Your task to perform on an android device: turn notification dots off Image 0: 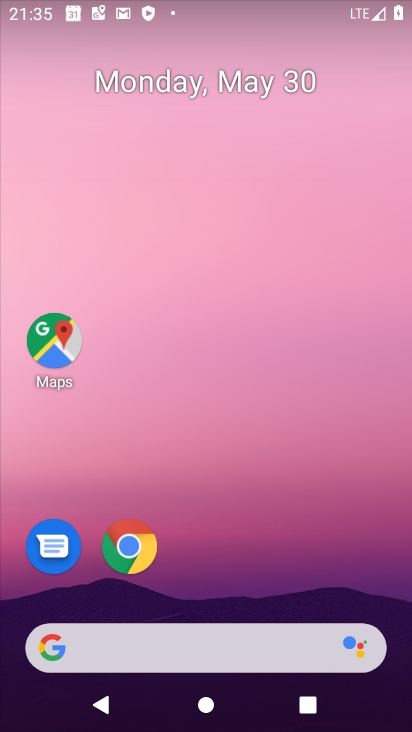
Step 0: drag from (382, 571) to (339, 112)
Your task to perform on an android device: turn notification dots off Image 1: 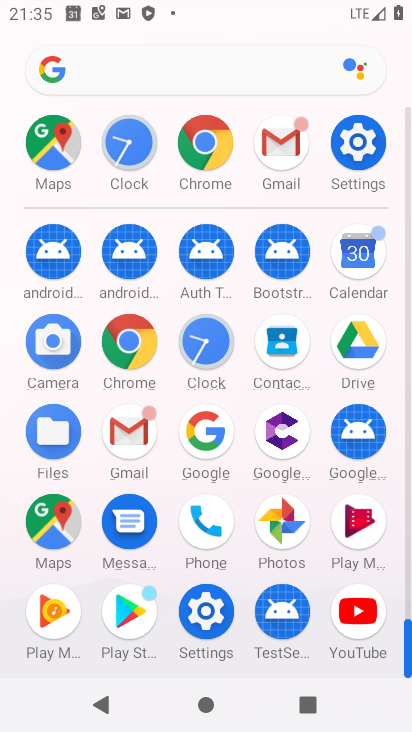
Step 1: click (369, 149)
Your task to perform on an android device: turn notification dots off Image 2: 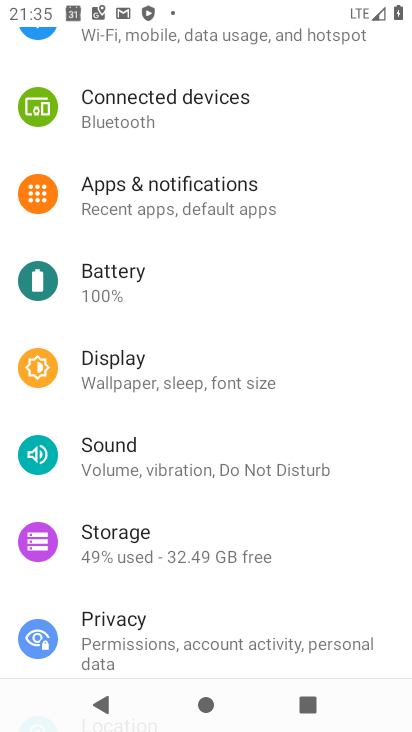
Step 2: click (255, 203)
Your task to perform on an android device: turn notification dots off Image 3: 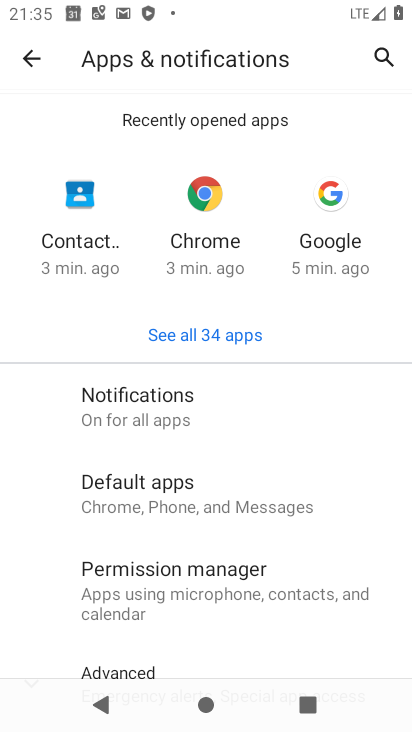
Step 3: click (272, 408)
Your task to perform on an android device: turn notification dots off Image 4: 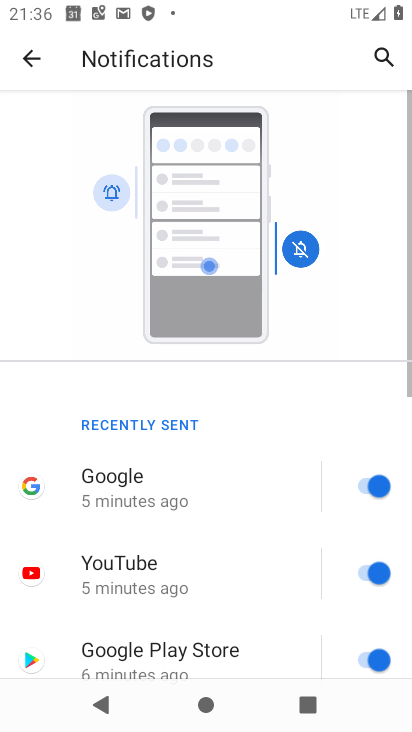
Step 4: drag from (274, 584) to (265, 291)
Your task to perform on an android device: turn notification dots off Image 5: 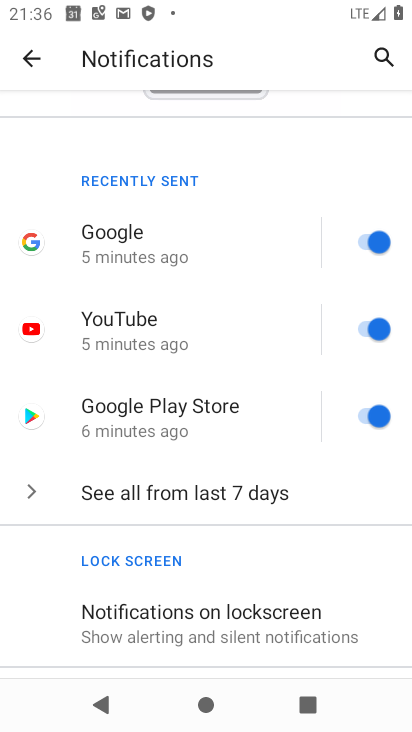
Step 5: drag from (238, 574) to (255, 348)
Your task to perform on an android device: turn notification dots off Image 6: 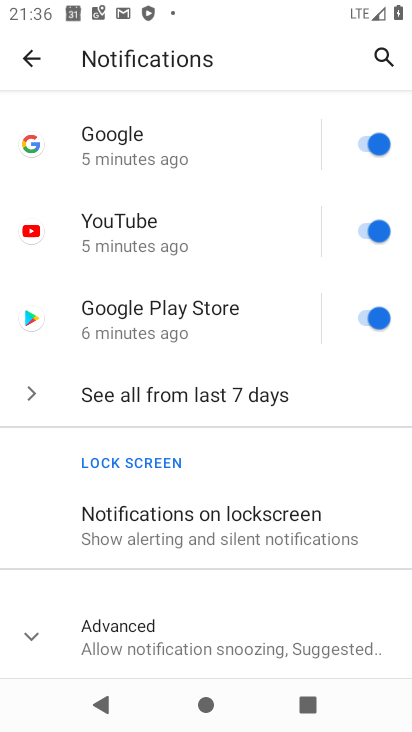
Step 6: click (282, 631)
Your task to perform on an android device: turn notification dots off Image 7: 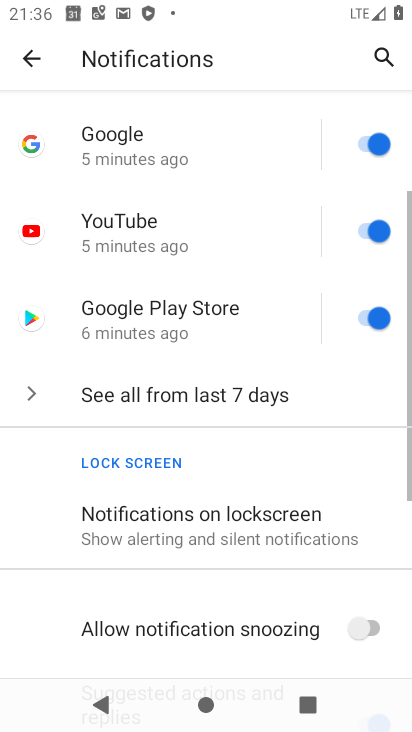
Step 7: drag from (281, 632) to (287, 376)
Your task to perform on an android device: turn notification dots off Image 8: 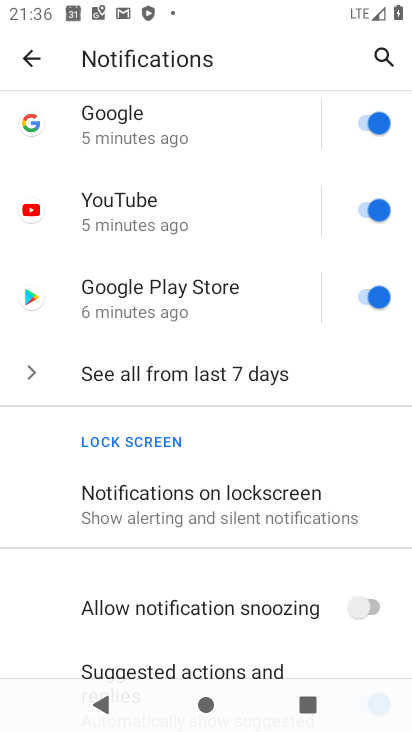
Step 8: drag from (287, 624) to (238, 302)
Your task to perform on an android device: turn notification dots off Image 9: 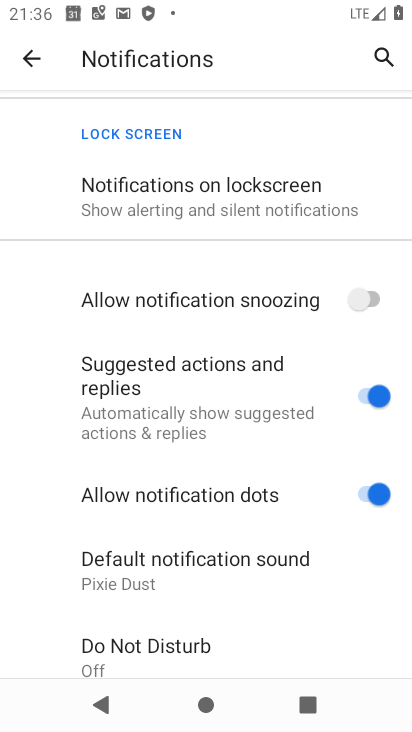
Step 9: click (374, 493)
Your task to perform on an android device: turn notification dots off Image 10: 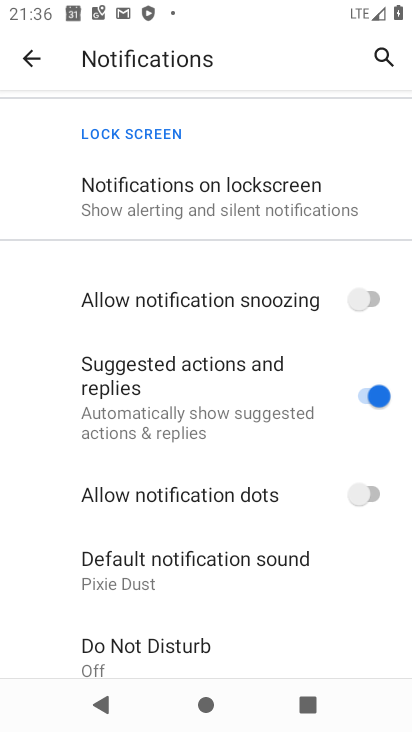
Step 10: task complete